Your task to perform on an android device: add a label to a message in the gmail app Image 0: 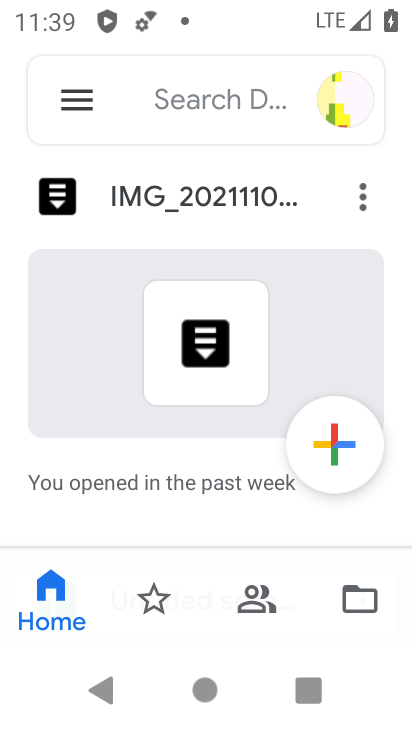
Step 0: press home button
Your task to perform on an android device: add a label to a message in the gmail app Image 1: 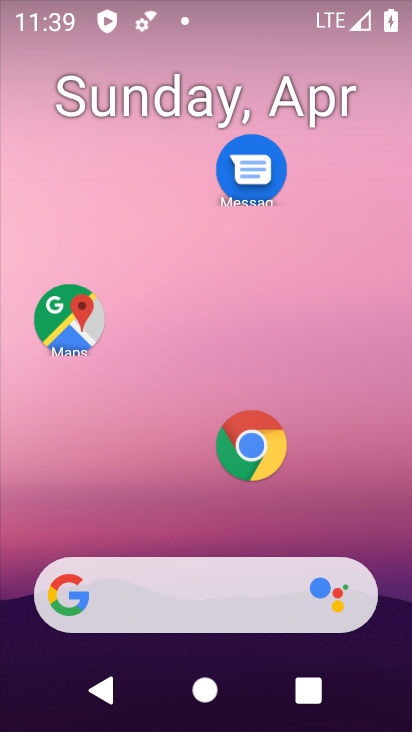
Step 1: drag from (163, 593) to (317, 154)
Your task to perform on an android device: add a label to a message in the gmail app Image 2: 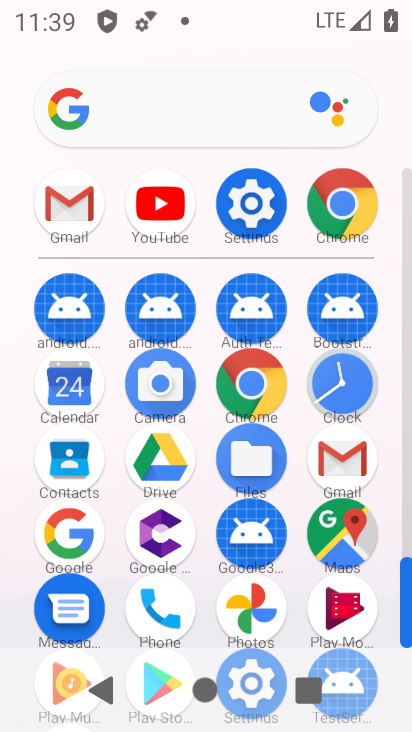
Step 2: click (350, 469)
Your task to perform on an android device: add a label to a message in the gmail app Image 3: 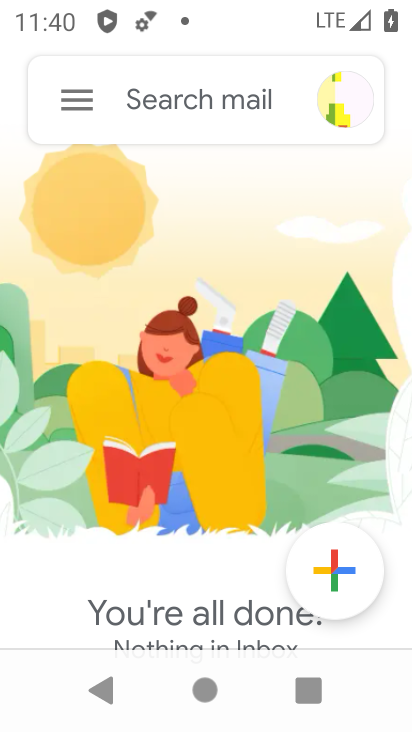
Step 3: drag from (183, 577) to (305, 183)
Your task to perform on an android device: add a label to a message in the gmail app Image 4: 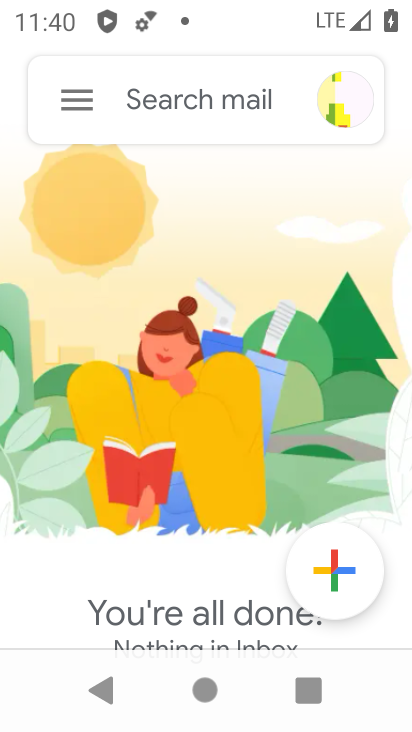
Step 4: drag from (150, 603) to (297, 223)
Your task to perform on an android device: add a label to a message in the gmail app Image 5: 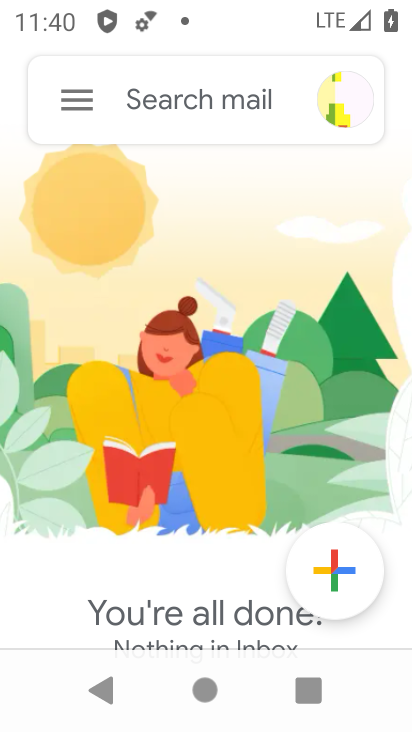
Step 5: drag from (228, 511) to (339, 108)
Your task to perform on an android device: add a label to a message in the gmail app Image 6: 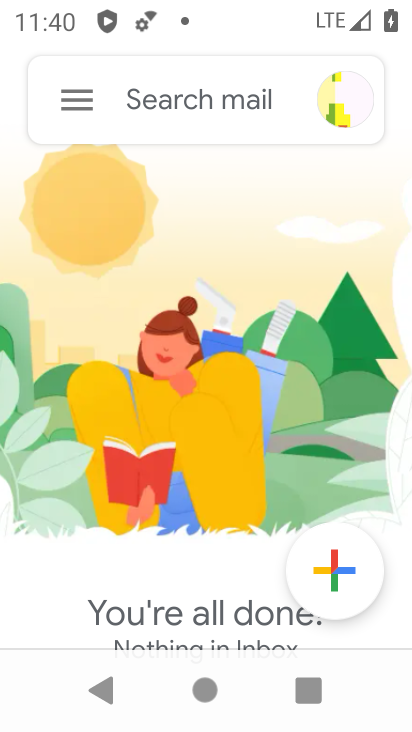
Step 6: click (82, 108)
Your task to perform on an android device: add a label to a message in the gmail app Image 7: 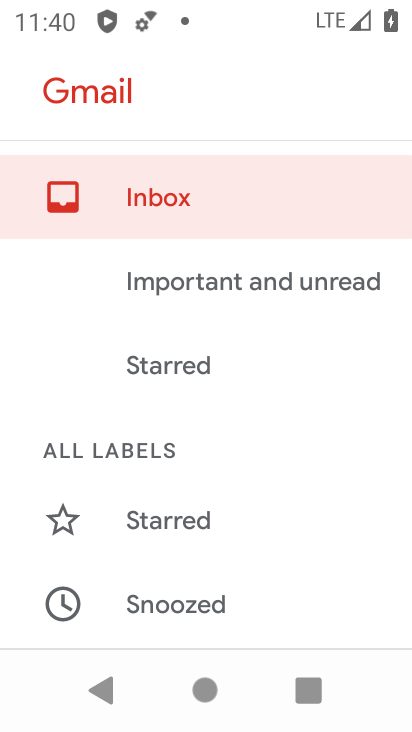
Step 7: drag from (197, 548) to (327, 104)
Your task to perform on an android device: add a label to a message in the gmail app Image 8: 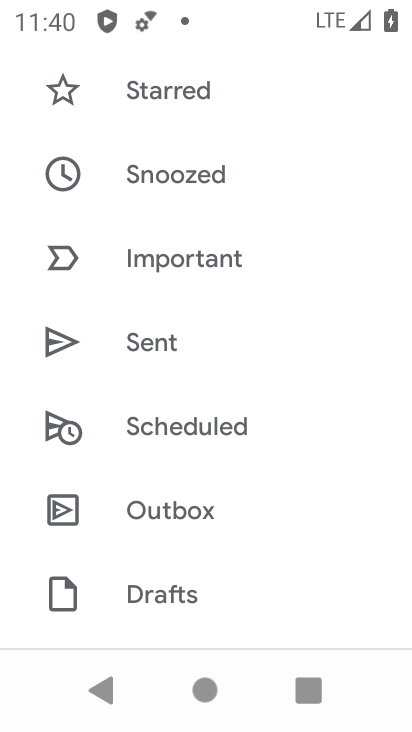
Step 8: drag from (203, 567) to (292, 212)
Your task to perform on an android device: add a label to a message in the gmail app Image 9: 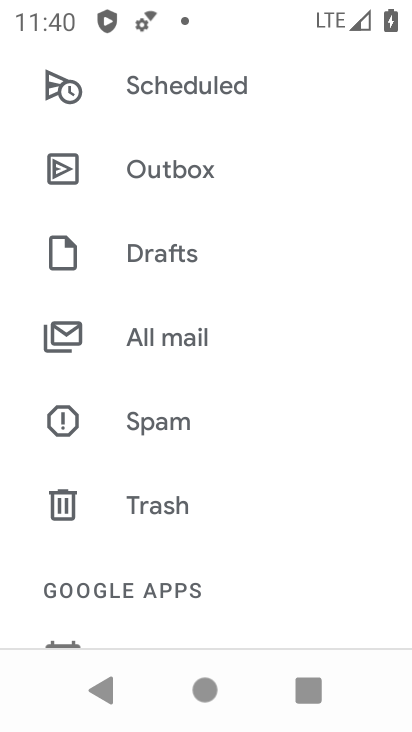
Step 9: click (187, 325)
Your task to perform on an android device: add a label to a message in the gmail app Image 10: 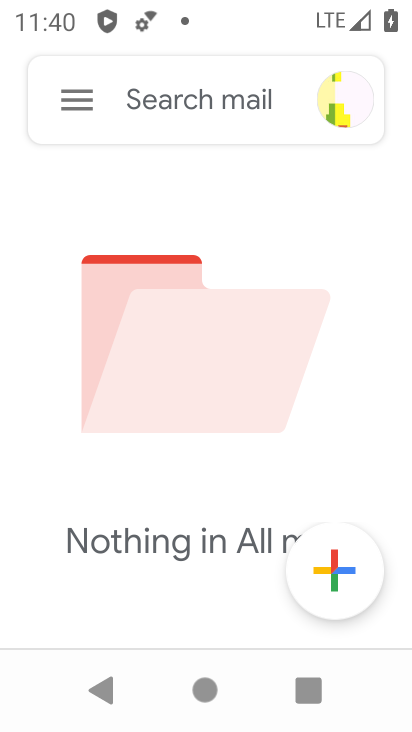
Step 10: task complete